Your task to perform on an android device: turn notification dots off Image 0: 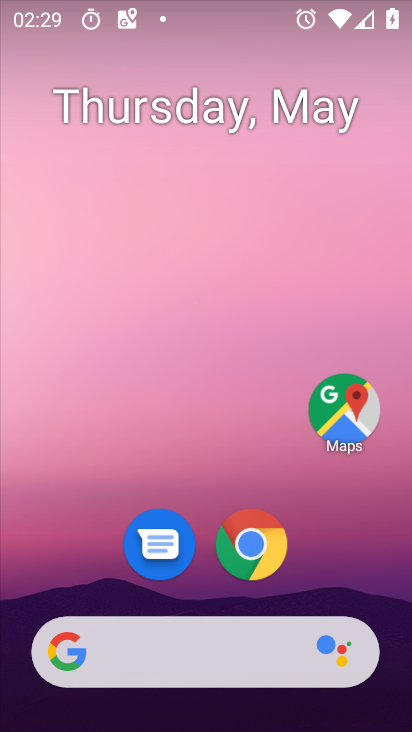
Step 0: drag from (366, 595) to (369, 248)
Your task to perform on an android device: turn notification dots off Image 1: 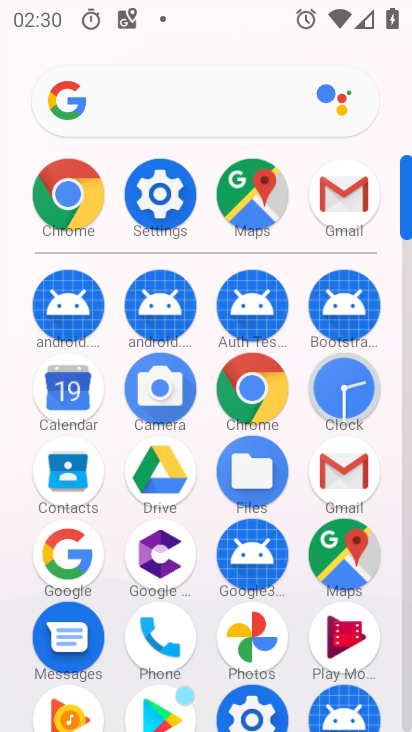
Step 1: click (167, 202)
Your task to perform on an android device: turn notification dots off Image 2: 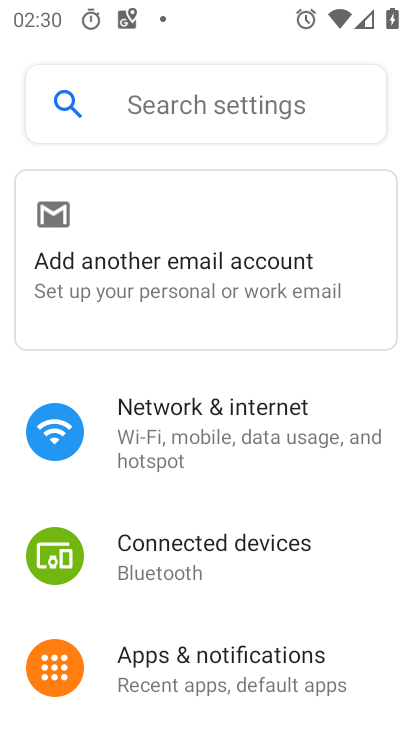
Step 2: drag from (369, 623) to (360, 491)
Your task to perform on an android device: turn notification dots off Image 3: 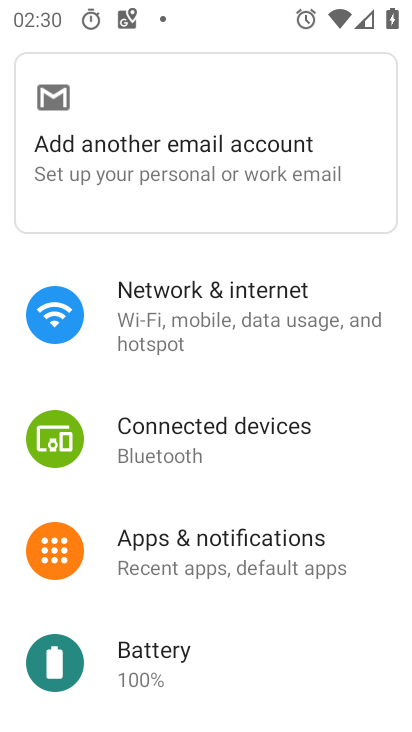
Step 3: drag from (372, 658) to (360, 544)
Your task to perform on an android device: turn notification dots off Image 4: 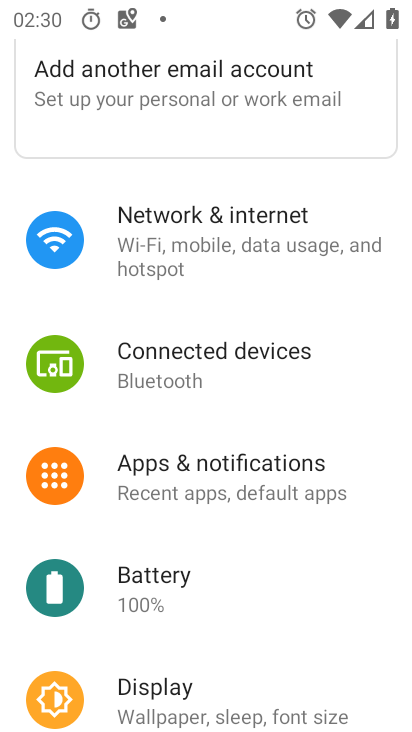
Step 4: click (277, 491)
Your task to perform on an android device: turn notification dots off Image 5: 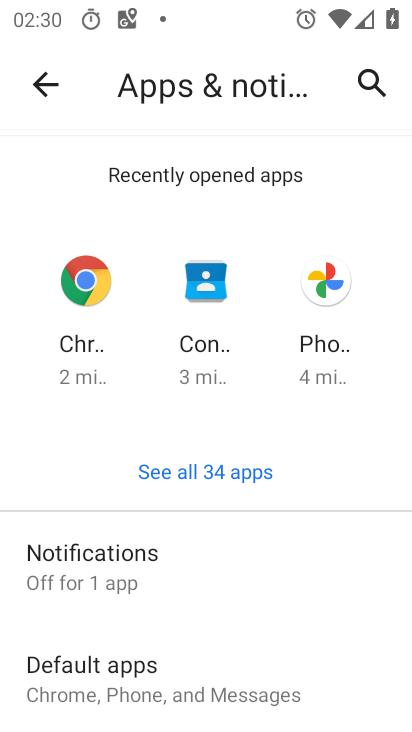
Step 5: drag from (339, 548) to (339, 461)
Your task to perform on an android device: turn notification dots off Image 6: 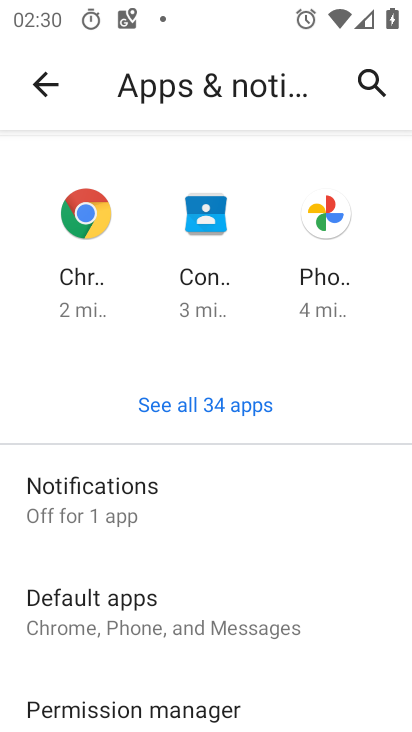
Step 6: click (98, 501)
Your task to perform on an android device: turn notification dots off Image 7: 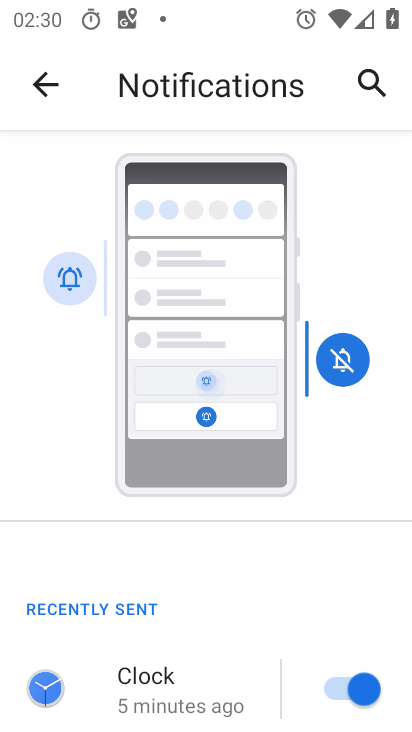
Step 7: drag from (286, 628) to (289, 495)
Your task to perform on an android device: turn notification dots off Image 8: 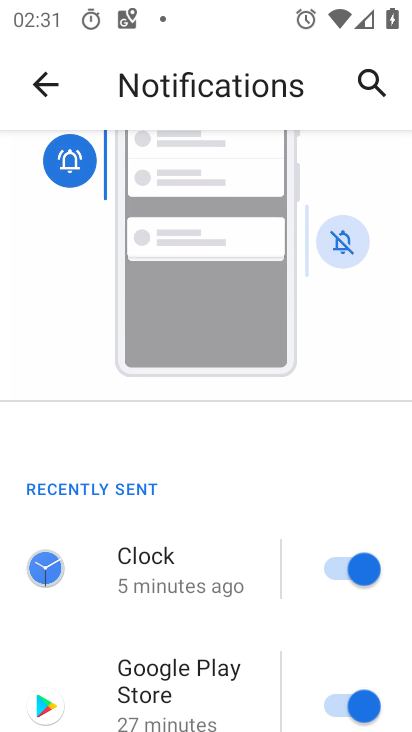
Step 8: drag from (254, 660) to (269, 537)
Your task to perform on an android device: turn notification dots off Image 9: 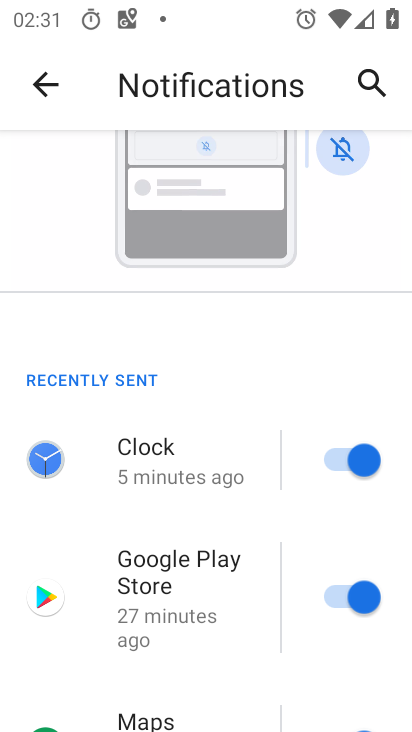
Step 9: drag from (264, 685) to (263, 556)
Your task to perform on an android device: turn notification dots off Image 10: 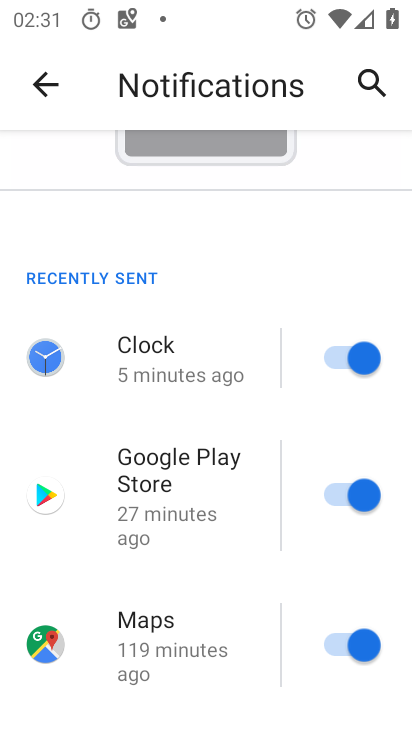
Step 10: drag from (268, 662) to (252, 474)
Your task to perform on an android device: turn notification dots off Image 11: 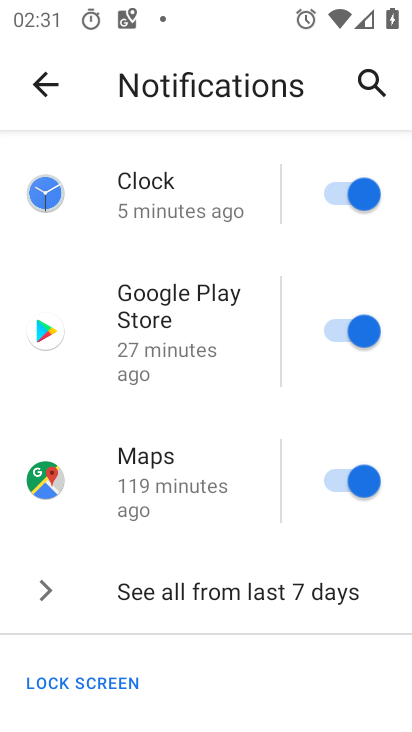
Step 11: drag from (249, 678) to (250, 484)
Your task to perform on an android device: turn notification dots off Image 12: 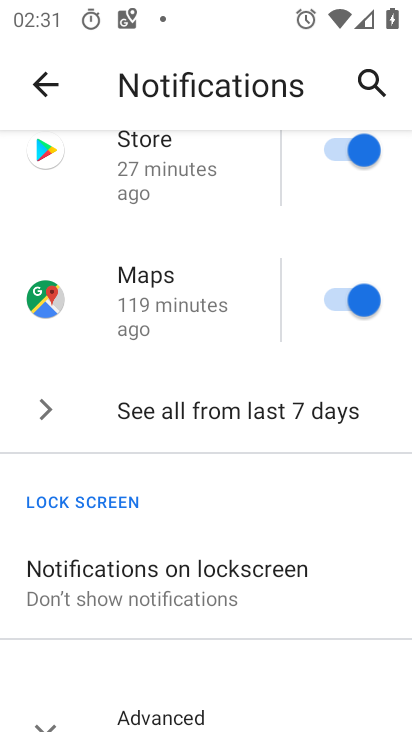
Step 12: drag from (232, 657) to (235, 595)
Your task to perform on an android device: turn notification dots off Image 13: 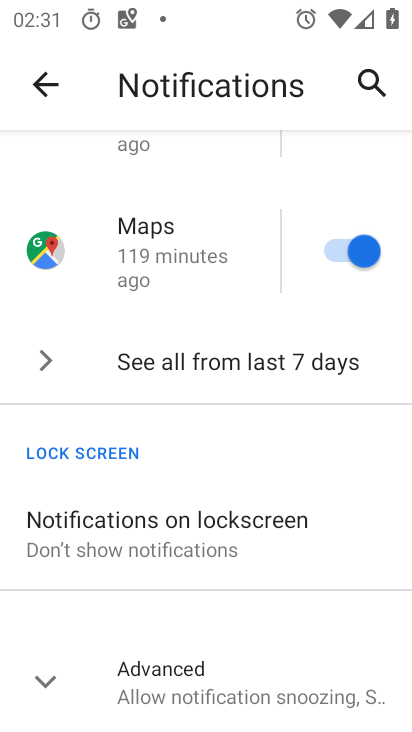
Step 13: drag from (232, 704) to (245, 549)
Your task to perform on an android device: turn notification dots off Image 14: 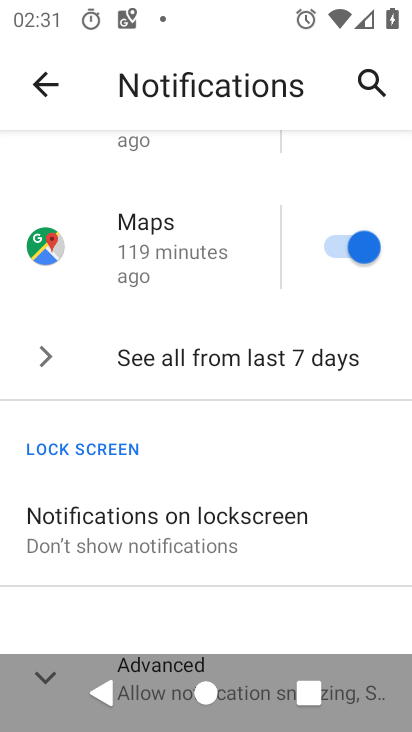
Step 14: drag from (232, 616) to (246, 439)
Your task to perform on an android device: turn notification dots off Image 15: 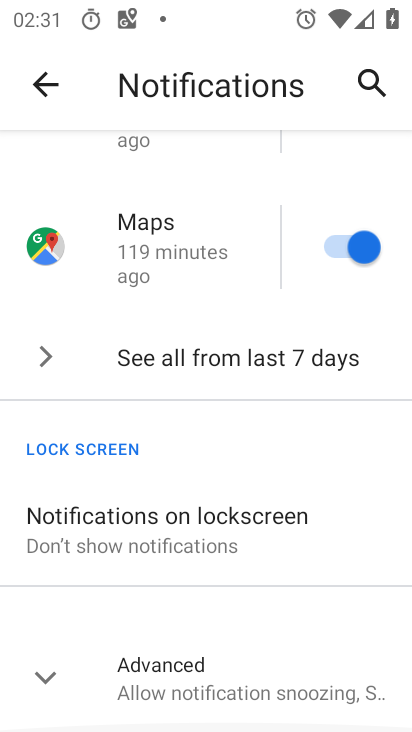
Step 15: click (231, 695)
Your task to perform on an android device: turn notification dots off Image 16: 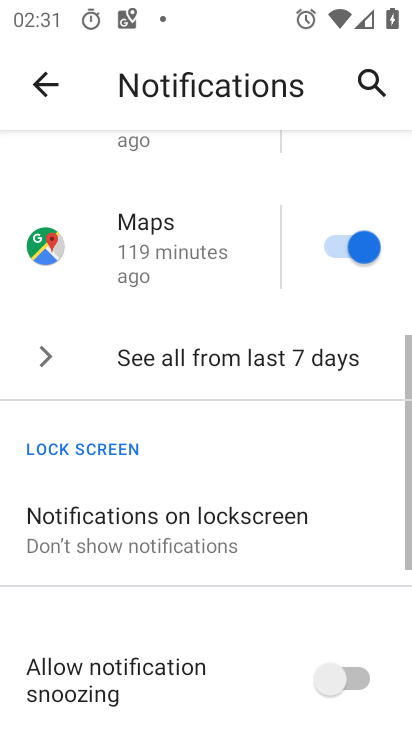
Step 16: drag from (230, 696) to (249, 514)
Your task to perform on an android device: turn notification dots off Image 17: 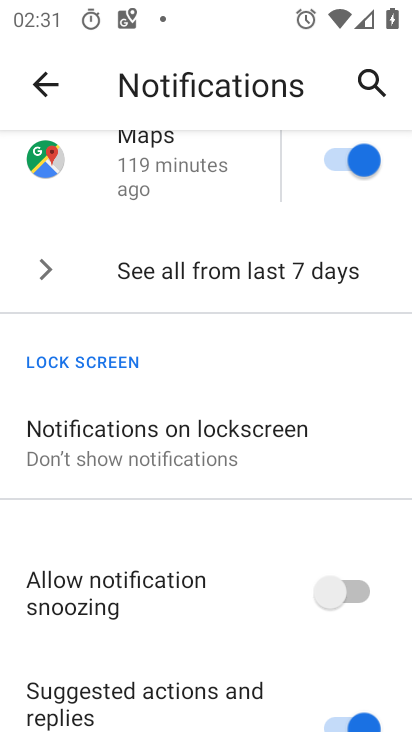
Step 17: drag from (227, 675) to (238, 508)
Your task to perform on an android device: turn notification dots off Image 18: 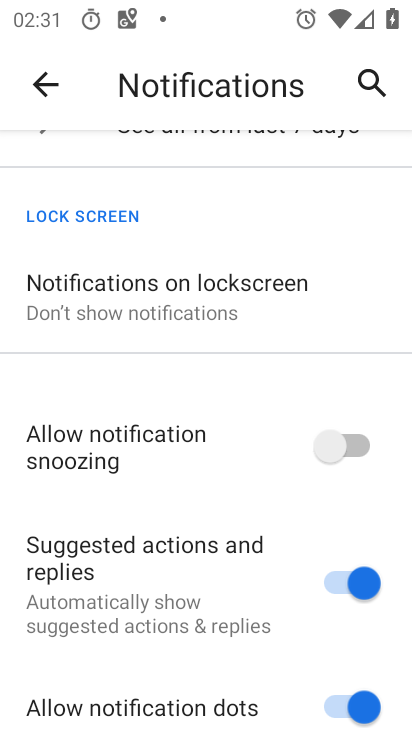
Step 18: drag from (226, 675) to (239, 524)
Your task to perform on an android device: turn notification dots off Image 19: 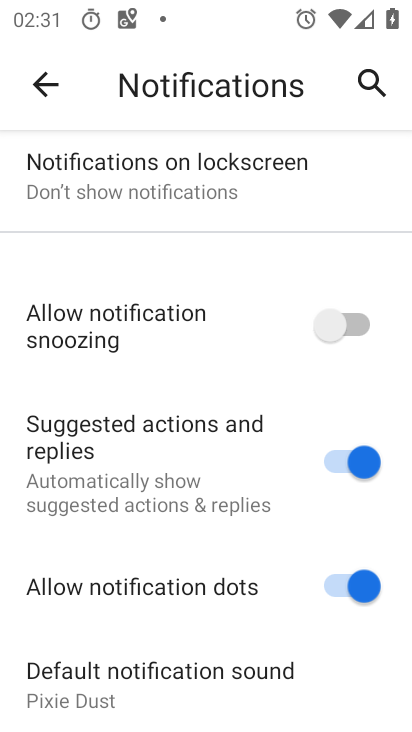
Step 19: click (332, 589)
Your task to perform on an android device: turn notification dots off Image 20: 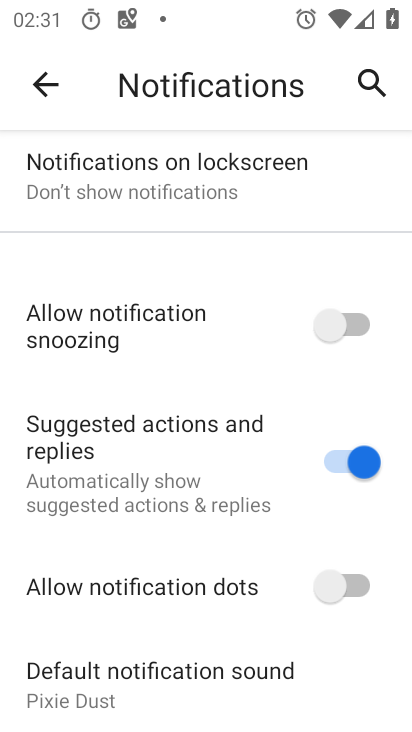
Step 20: task complete